Your task to perform on an android device: Set the phone to "Do not disturb". Image 0: 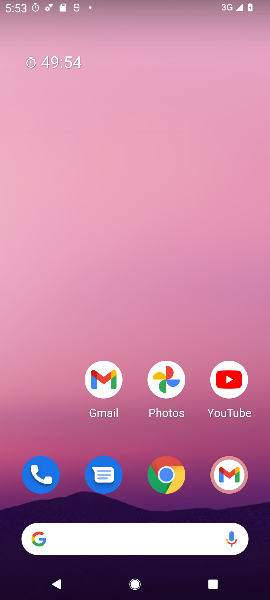
Step 0: press home button
Your task to perform on an android device: Set the phone to "Do not disturb". Image 1: 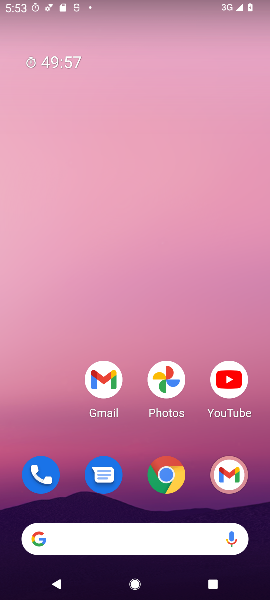
Step 1: drag from (62, 443) to (54, 207)
Your task to perform on an android device: Set the phone to "Do not disturb". Image 2: 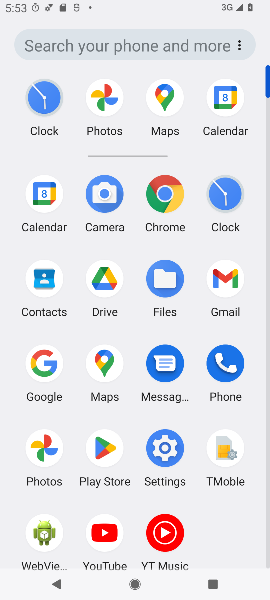
Step 2: click (172, 455)
Your task to perform on an android device: Set the phone to "Do not disturb". Image 3: 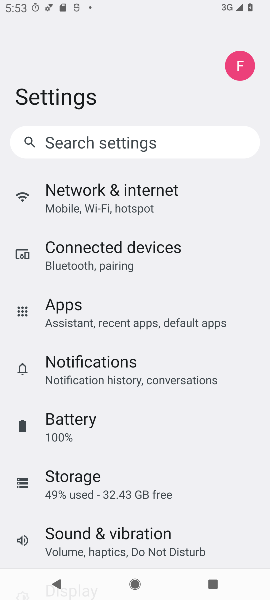
Step 3: drag from (234, 472) to (230, 416)
Your task to perform on an android device: Set the phone to "Do not disturb". Image 4: 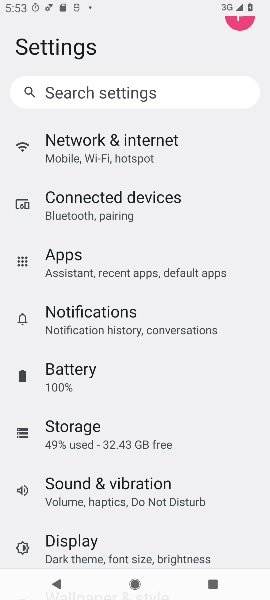
Step 4: drag from (223, 501) to (223, 408)
Your task to perform on an android device: Set the phone to "Do not disturb". Image 5: 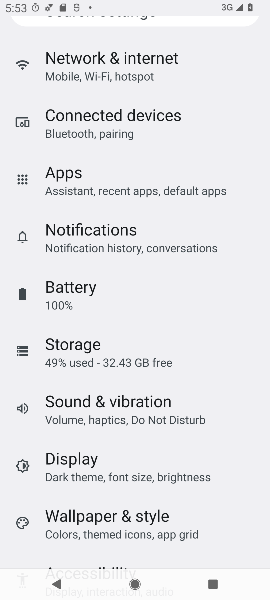
Step 5: drag from (224, 455) to (222, 326)
Your task to perform on an android device: Set the phone to "Do not disturb". Image 6: 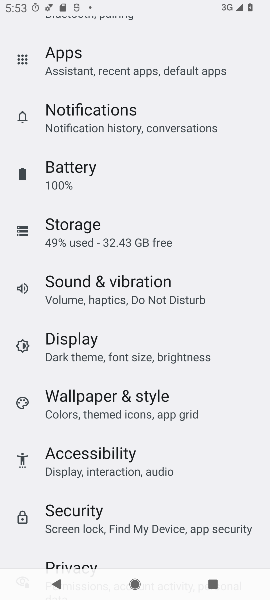
Step 6: drag from (227, 428) to (230, 315)
Your task to perform on an android device: Set the phone to "Do not disturb". Image 7: 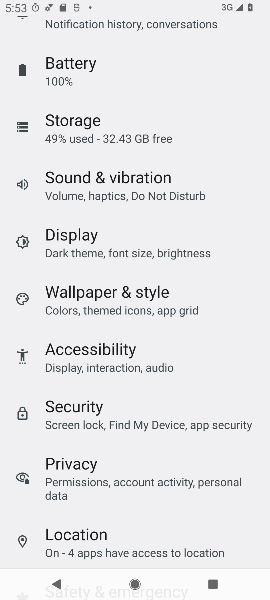
Step 7: click (153, 188)
Your task to perform on an android device: Set the phone to "Do not disturb". Image 8: 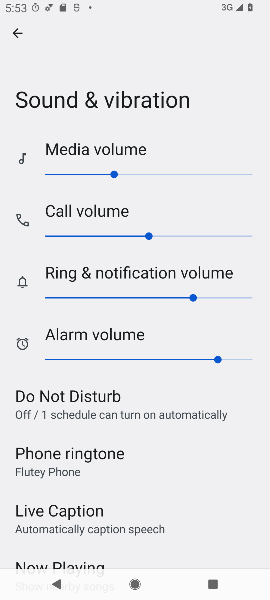
Step 8: click (93, 409)
Your task to perform on an android device: Set the phone to "Do not disturb". Image 9: 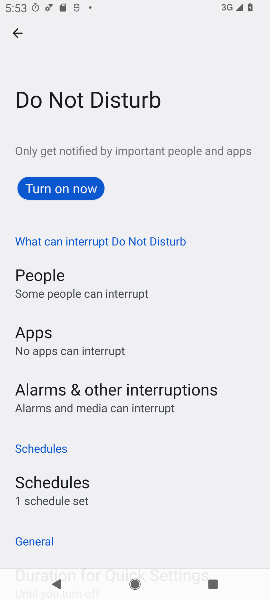
Step 9: click (70, 187)
Your task to perform on an android device: Set the phone to "Do not disturb". Image 10: 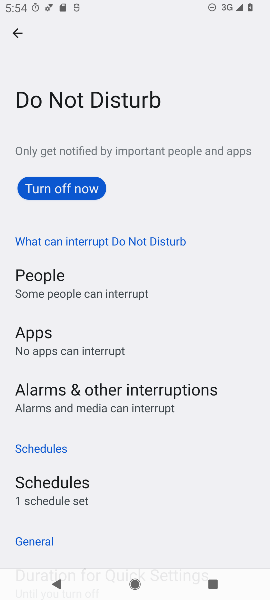
Step 10: task complete